Your task to perform on an android device: turn off location history Image 0: 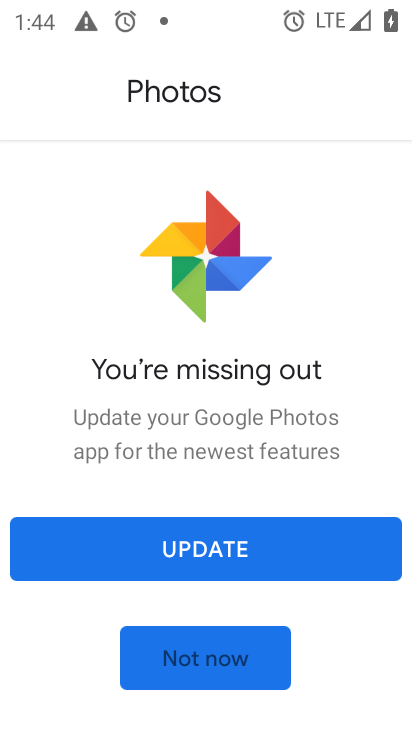
Step 0: press home button
Your task to perform on an android device: turn off location history Image 1: 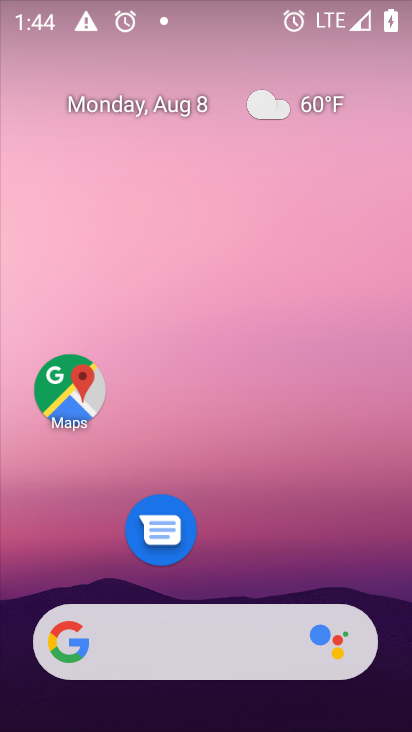
Step 1: drag from (236, 596) to (231, 207)
Your task to perform on an android device: turn off location history Image 2: 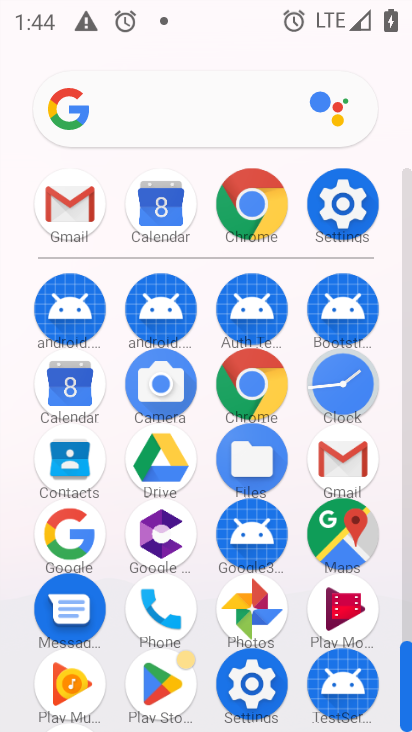
Step 2: click (332, 205)
Your task to perform on an android device: turn off location history Image 3: 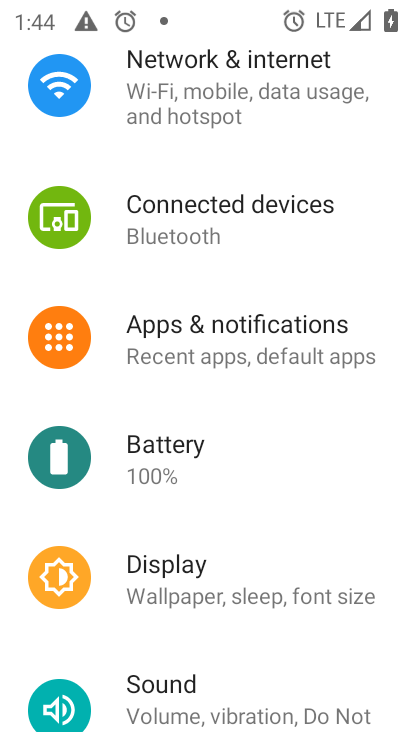
Step 3: drag from (189, 626) to (161, 355)
Your task to perform on an android device: turn off location history Image 4: 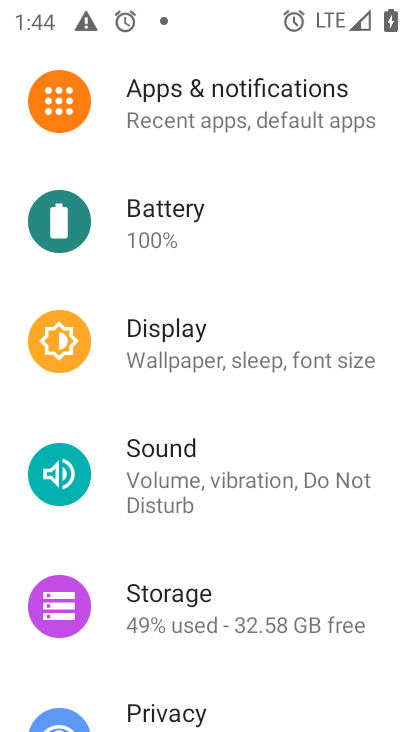
Step 4: click (194, 587)
Your task to perform on an android device: turn off location history Image 5: 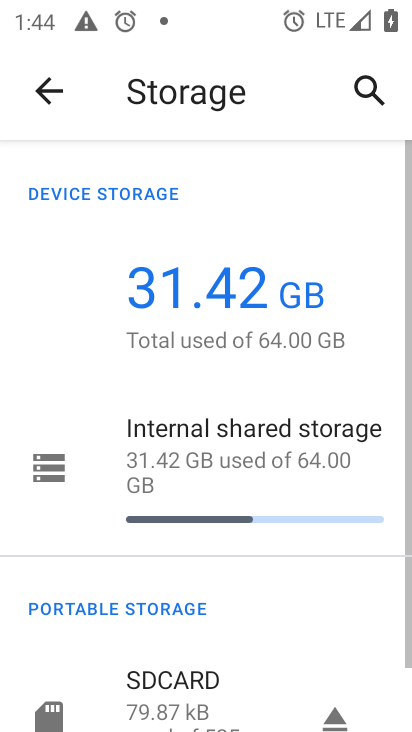
Step 5: click (40, 81)
Your task to perform on an android device: turn off location history Image 6: 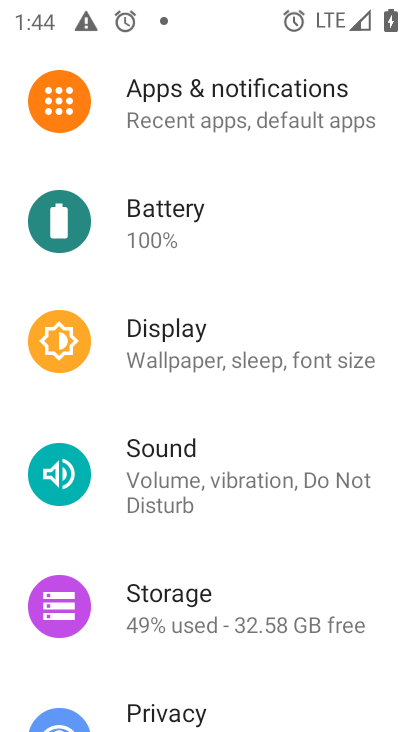
Step 6: drag from (211, 560) to (206, 358)
Your task to perform on an android device: turn off location history Image 7: 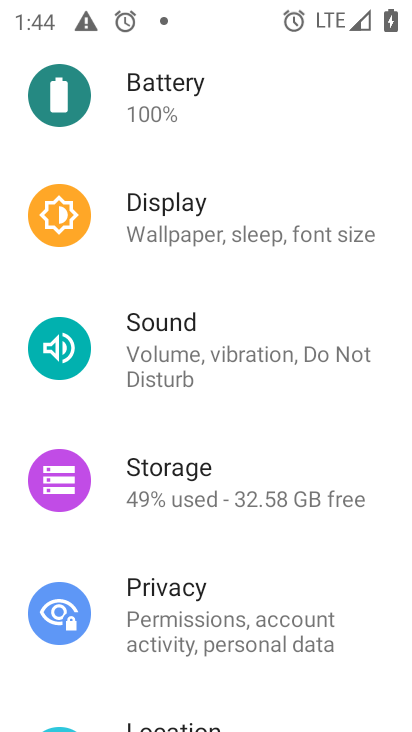
Step 7: drag from (173, 703) to (168, 286)
Your task to perform on an android device: turn off location history Image 8: 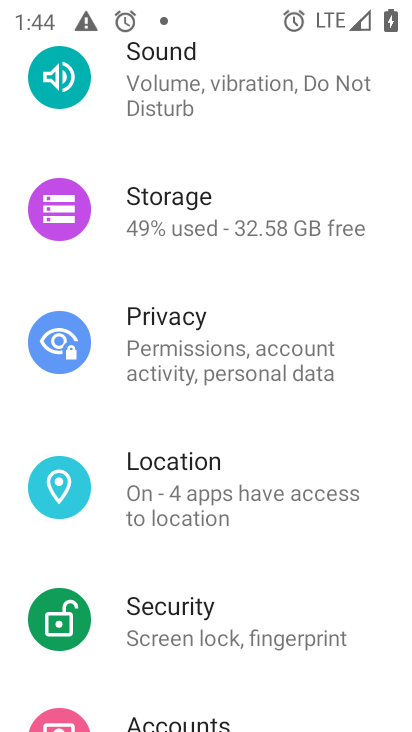
Step 8: click (192, 481)
Your task to perform on an android device: turn off location history Image 9: 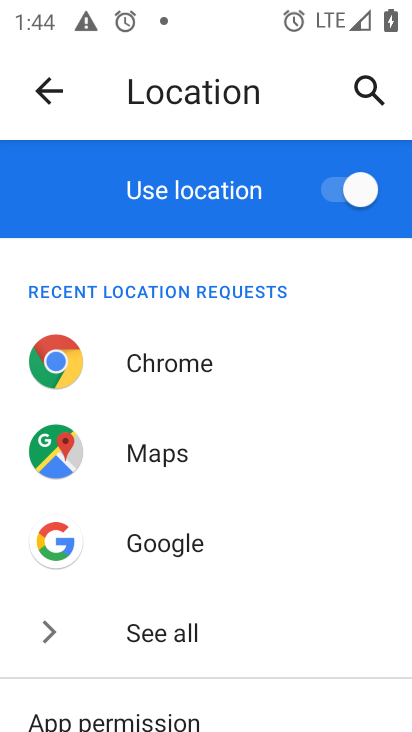
Step 9: drag from (177, 682) to (171, 544)
Your task to perform on an android device: turn off location history Image 10: 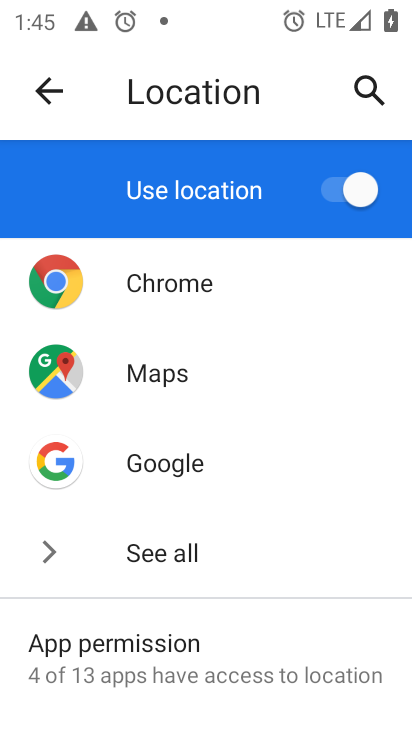
Step 10: click (167, 671)
Your task to perform on an android device: turn off location history Image 11: 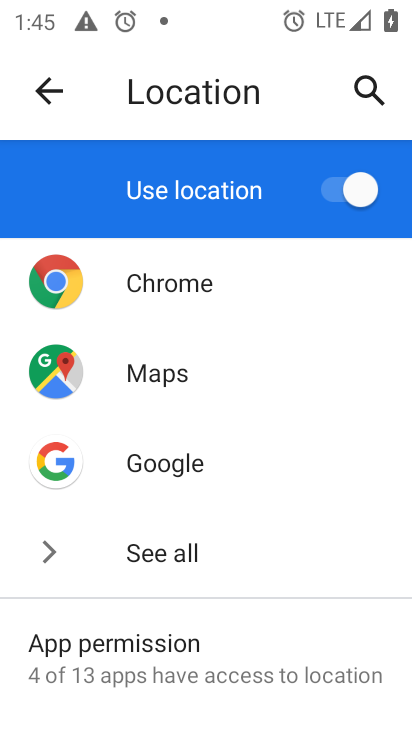
Step 11: drag from (167, 670) to (168, 303)
Your task to perform on an android device: turn off location history Image 12: 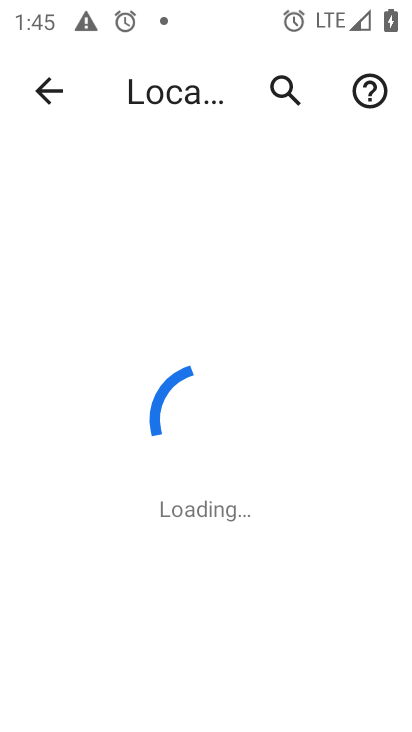
Step 12: click (37, 84)
Your task to perform on an android device: turn off location history Image 13: 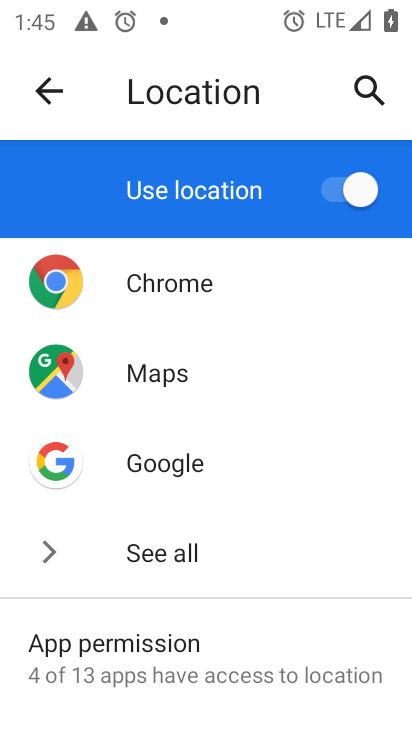
Step 13: drag from (276, 594) to (282, 283)
Your task to perform on an android device: turn off location history Image 14: 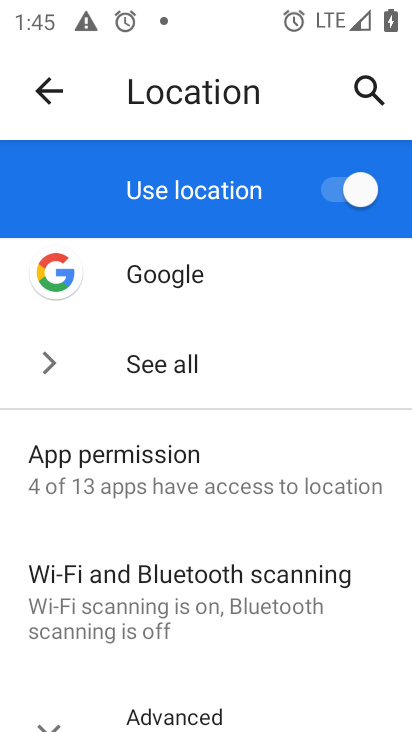
Step 14: drag from (152, 667) to (149, 298)
Your task to perform on an android device: turn off location history Image 15: 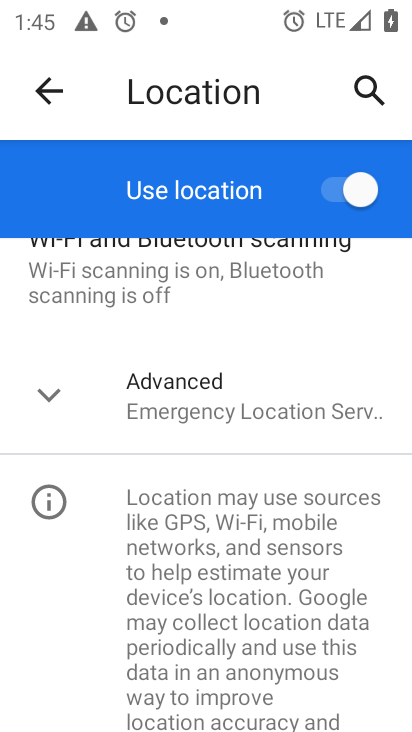
Step 15: click (189, 410)
Your task to perform on an android device: turn off location history Image 16: 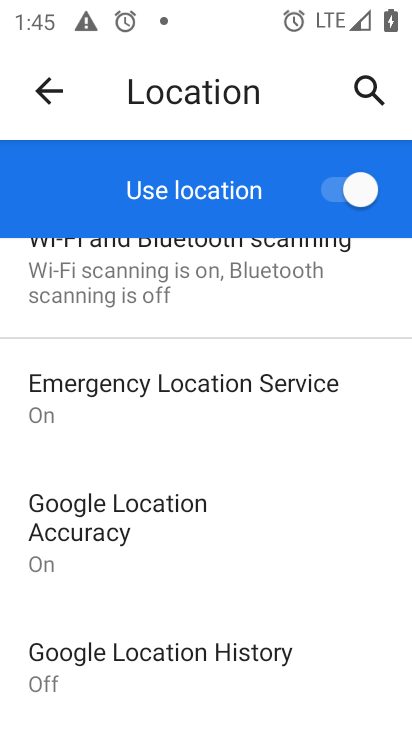
Step 16: click (183, 645)
Your task to perform on an android device: turn off location history Image 17: 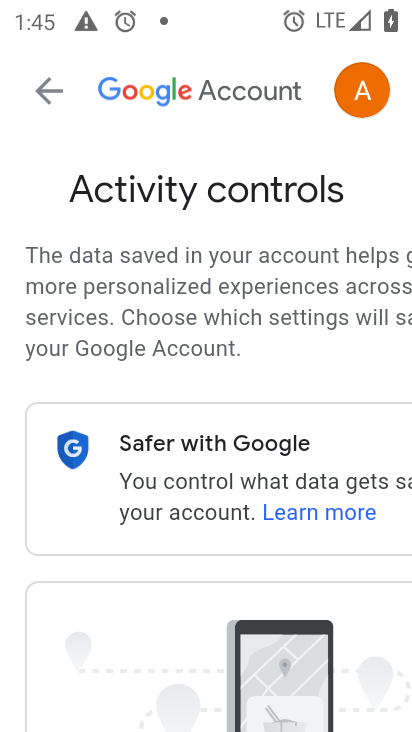
Step 17: drag from (188, 658) to (190, 304)
Your task to perform on an android device: turn off location history Image 18: 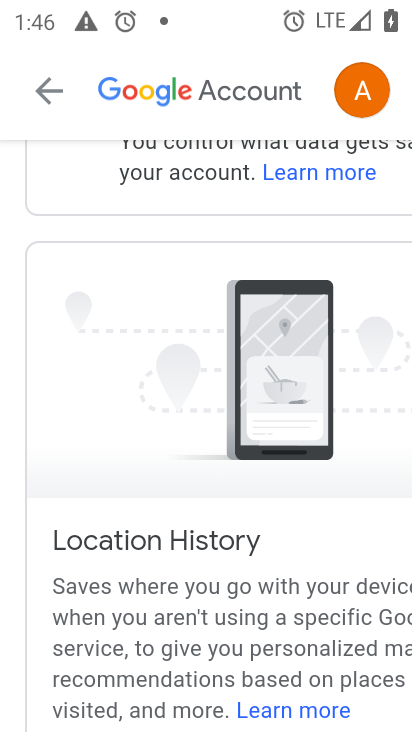
Step 18: press home button
Your task to perform on an android device: turn off location history Image 19: 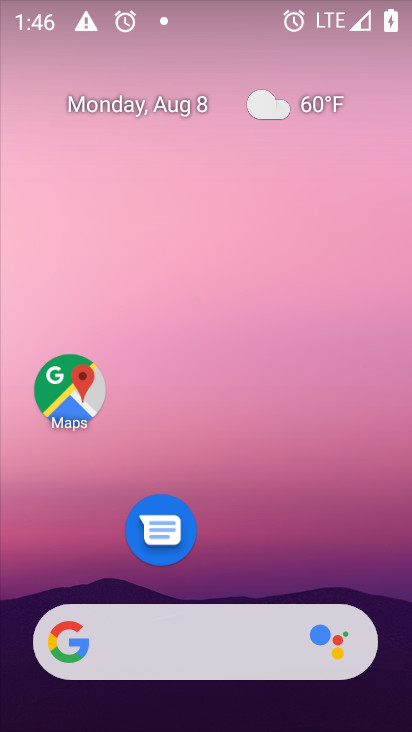
Step 19: drag from (196, 323) to (196, 94)
Your task to perform on an android device: turn off location history Image 20: 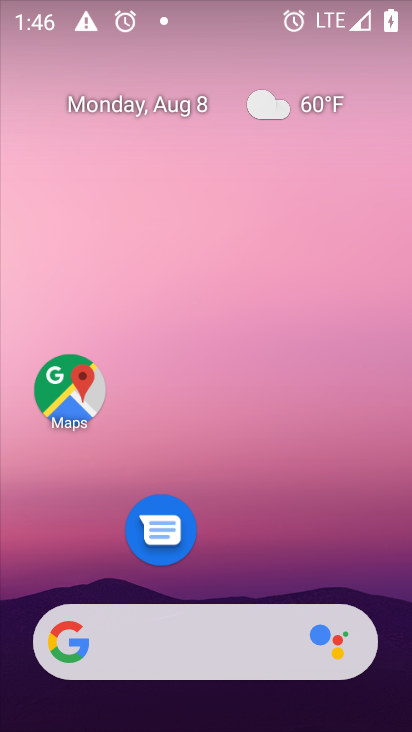
Step 20: drag from (215, 470) to (221, 89)
Your task to perform on an android device: turn off location history Image 21: 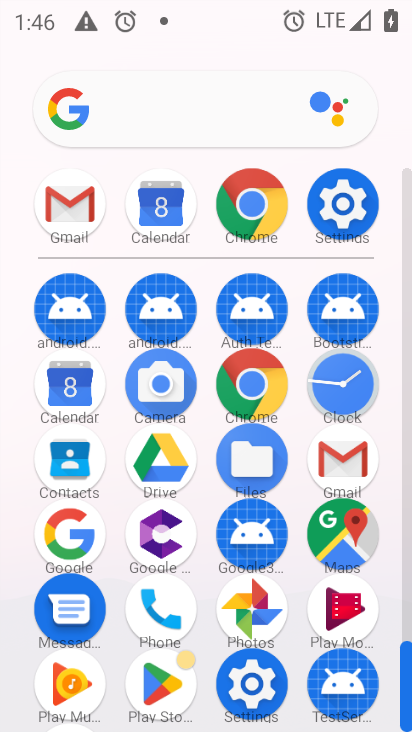
Step 21: click (339, 203)
Your task to perform on an android device: turn off location history Image 22: 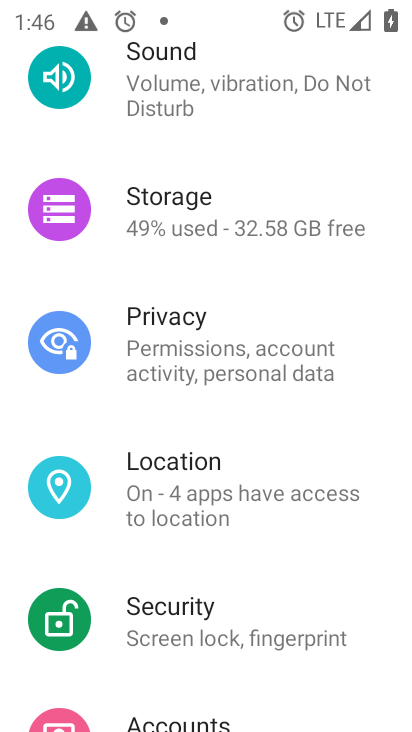
Step 22: click (194, 477)
Your task to perform on an android device: turn off location history Image 23: 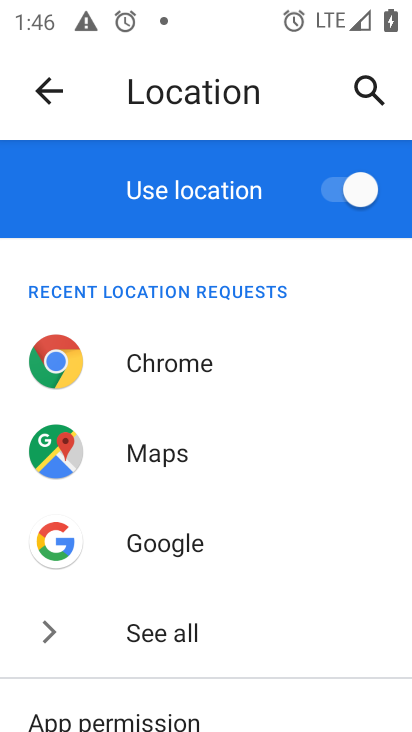
Step 23: drag from (159, 683) to (159, 367)
Your task to perform on an android device: turn off location history Image 24: 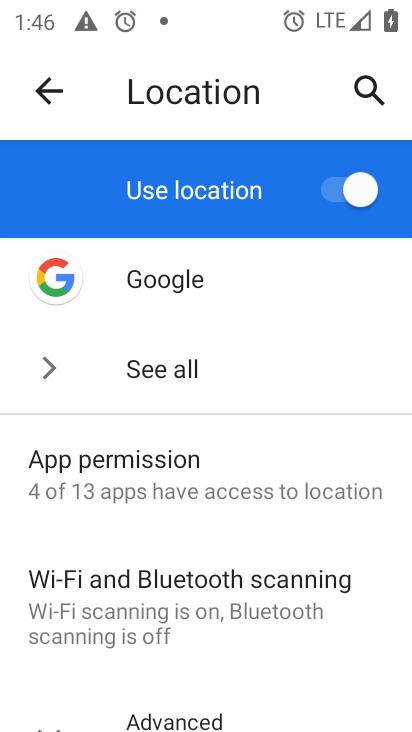
Step 24: drag from (181, 701) to (180, 349)
Your task to perform on an android device: turn off location history Image 25: 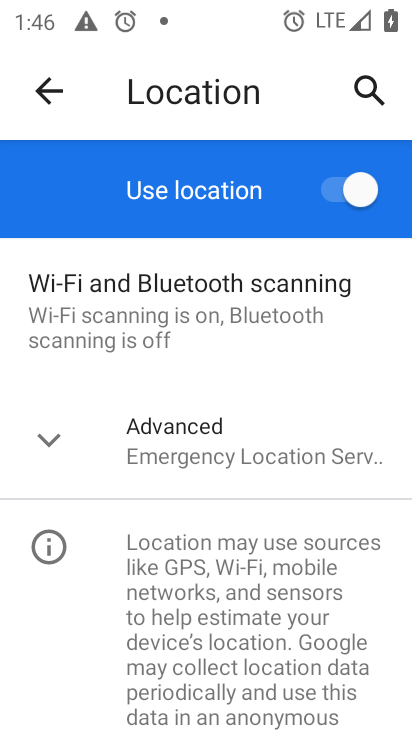
Step 25: click (185, 439)
Your task to perform on an android device: turn off location history Image 26: 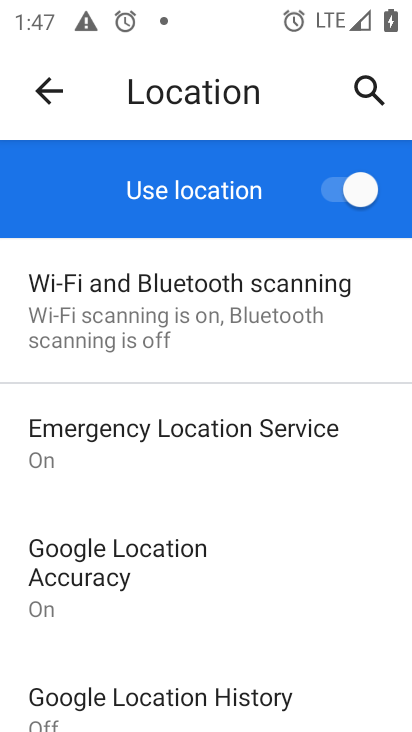
Step 26: drag from (160, 686) to (150, 341)
Your task to perform on an android device: turn off location history Image 27: 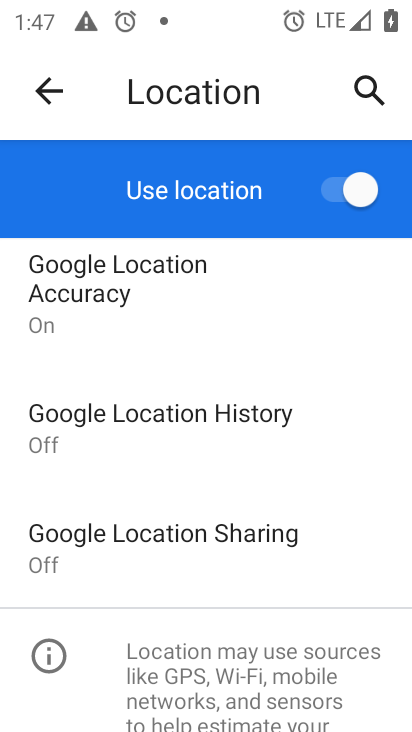
Step 27: click (146, 413)
Your task to perform on an android device: turn off location history Image 28: 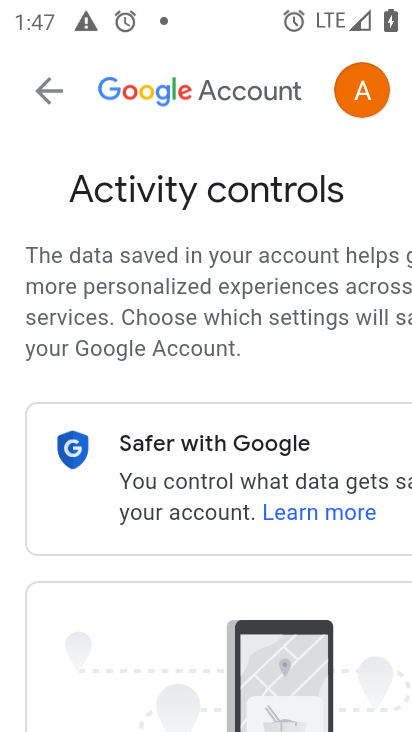
Step 28: task complete